Your task to perform on an android device: Open eBay Image 0: 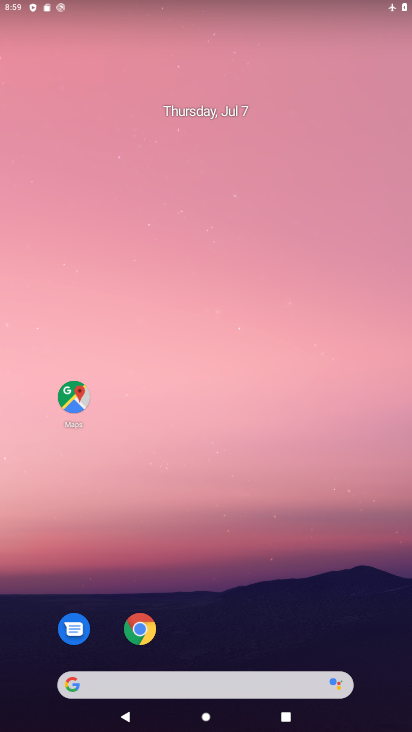
Step 0: click (139, 632)
Your task to perform on an android device: Open eBay Image 1: 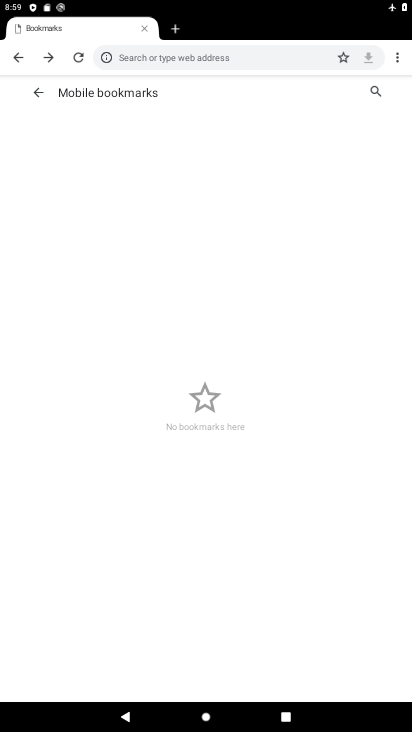
Step 1: click (398, 55)
Your task to perform on an android device: Open eBay Image 2: 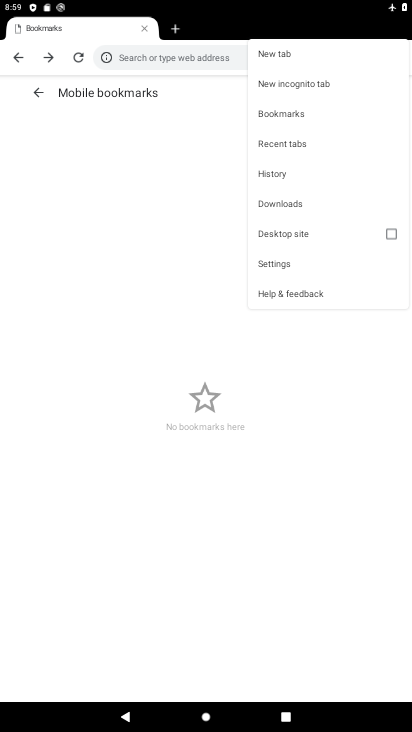
Step 2: click (279, 52)
Your task to perform on an android device: Open eBay Image 3: 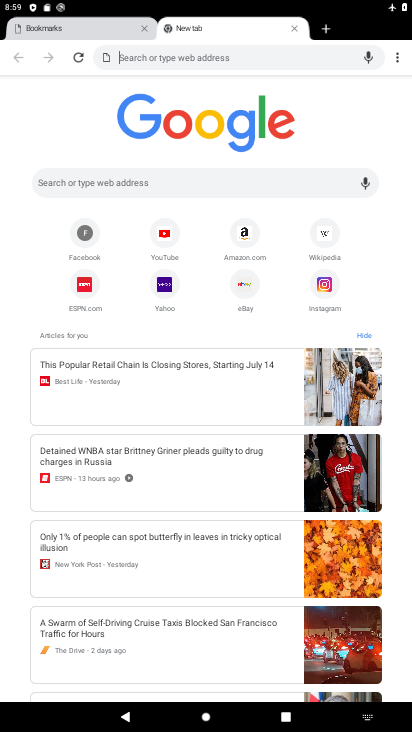
Step 3: click (243, 280)
Your task to perform on an android device: Open eBay Image 4: 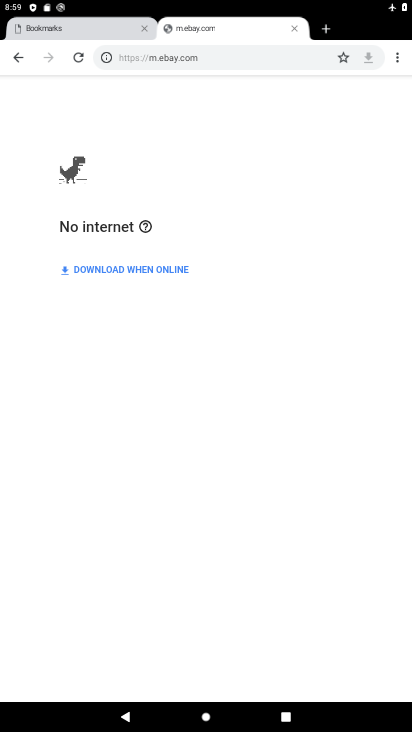
Step 4: task complete